Your task to perform on an android device: open a bookmark in the chrome app Image 0: 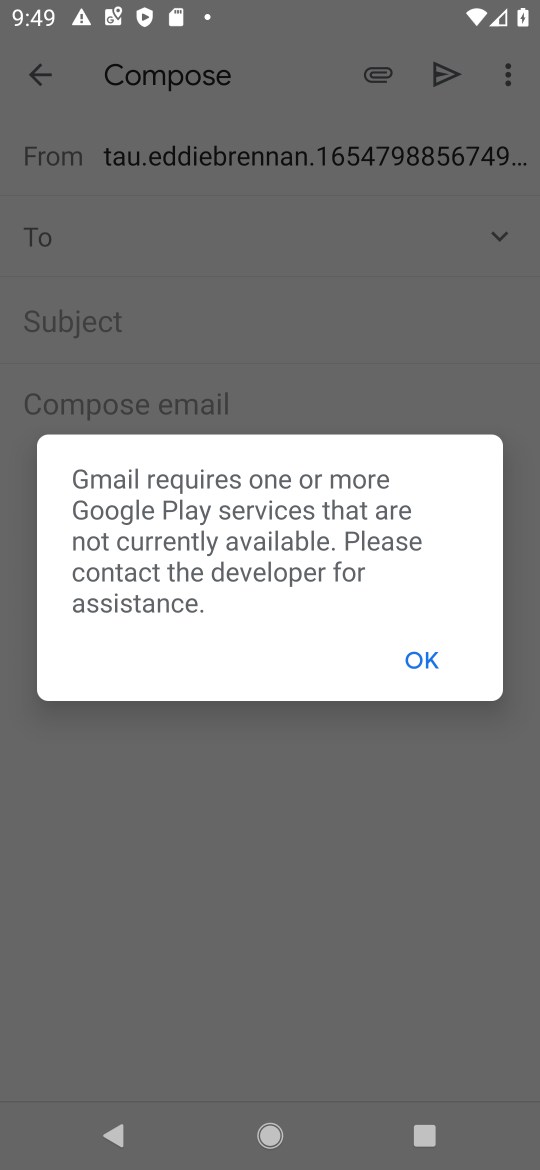
Step 0: press home button
Your task to perform on an android device: open a bookmark in the chrome app Image 1: 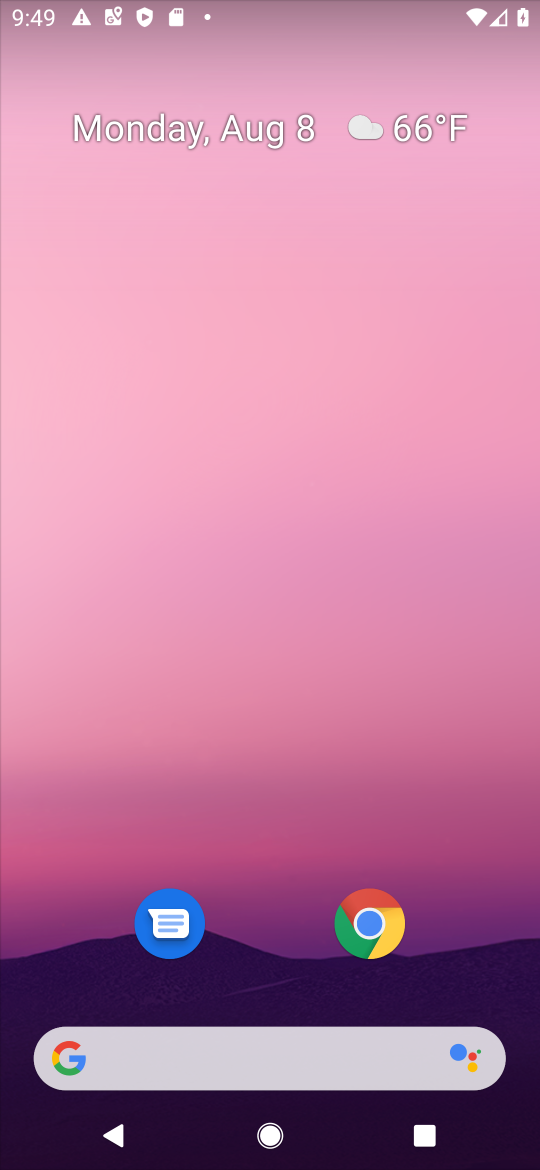
Step 1: click (369, 921)
Your task to perform on an android device: open a bookmark in the chrome app Image 2: 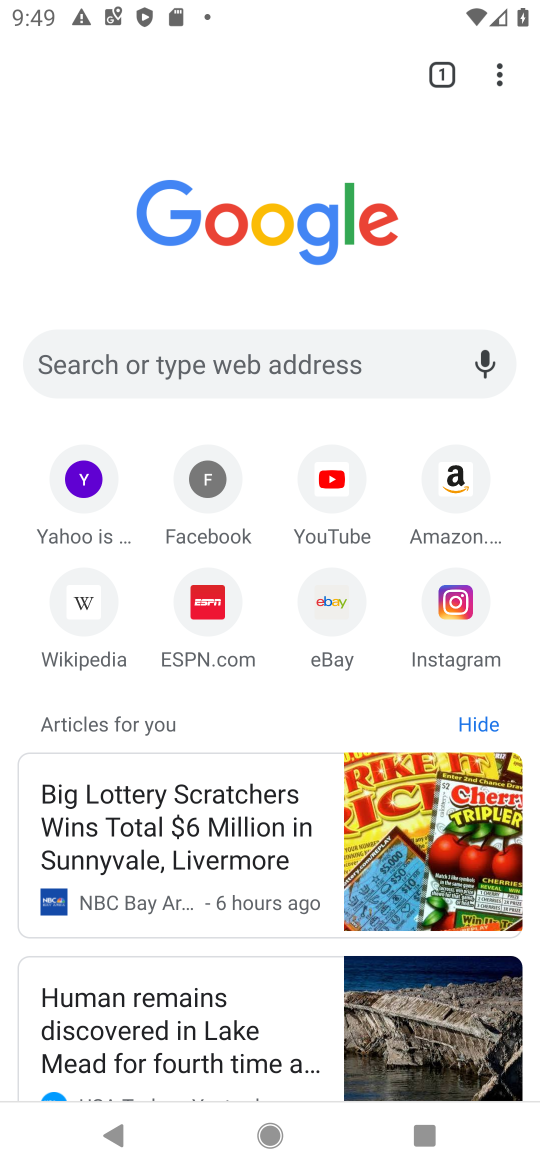
Step 2: click (497, 63)
Your task to perform on an android device: open a bookmark in the chrome app Image 3: 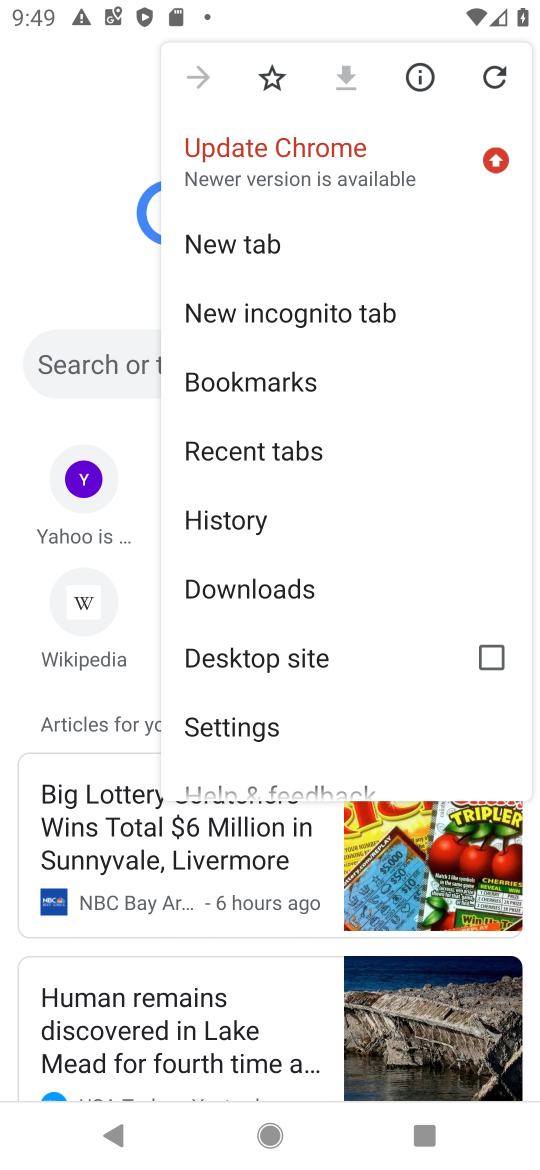
Step 3: click (257, 386)
Your task to perform on an android device: open a bookmark in the chrome app Image 4: 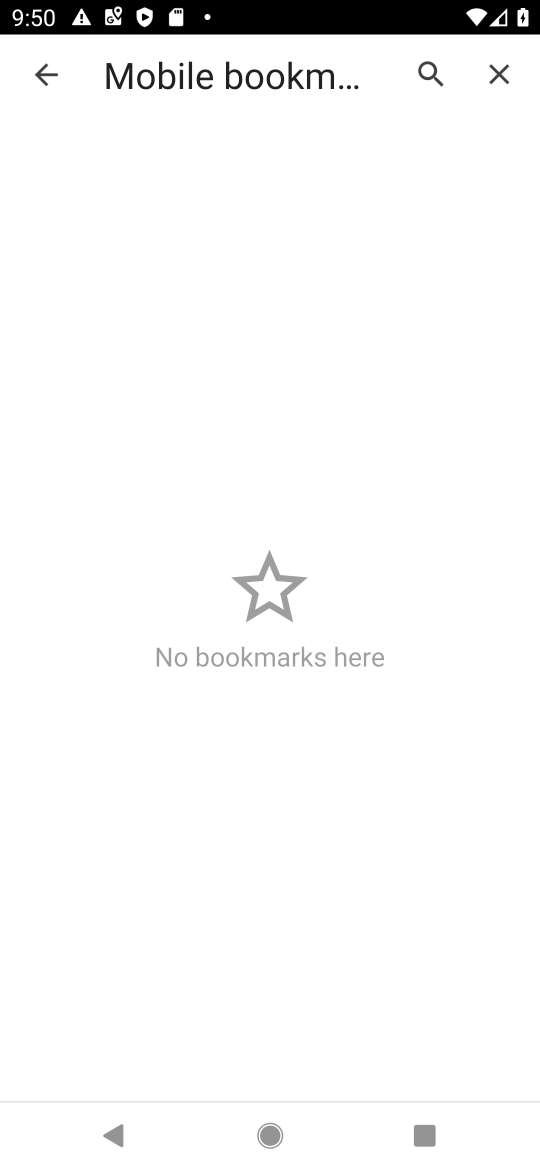
Step 4: task complete